Your task to perform on an android device: Open Google Maps Image 0: 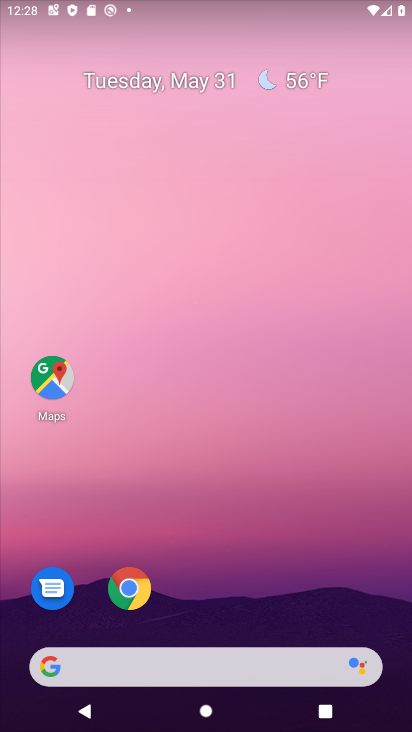
Step 0: click (34, 371)
Your task to perform on an android device: Open Google Maps Image 1: 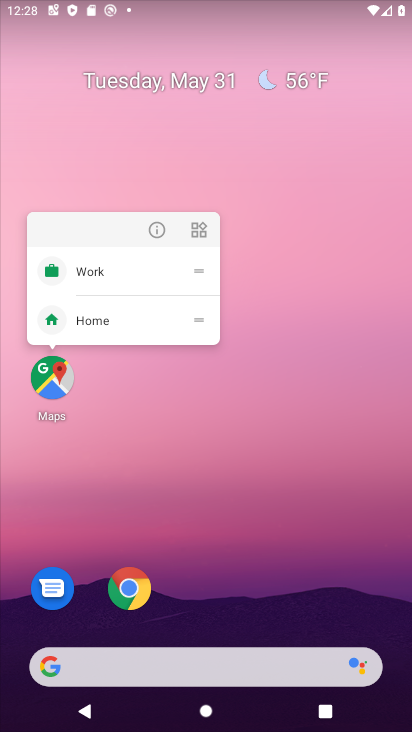
Step 1: click (53, 405)
Your task to perform on an android device: Open Google Maps Image 2: 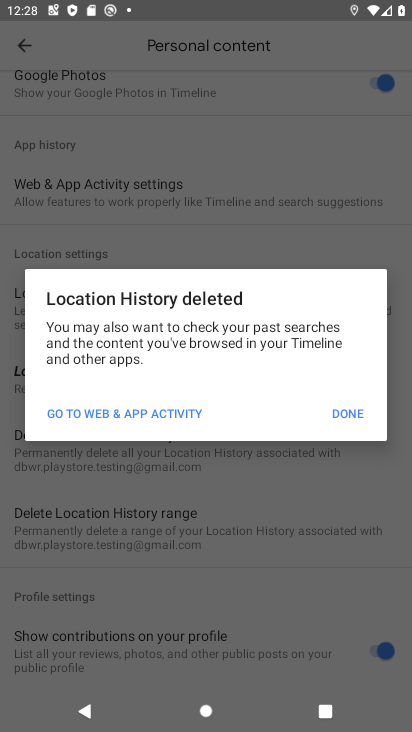
Step 2: click (356, 415)
Your task to perform on an android device: Open Google Maps Image 3: 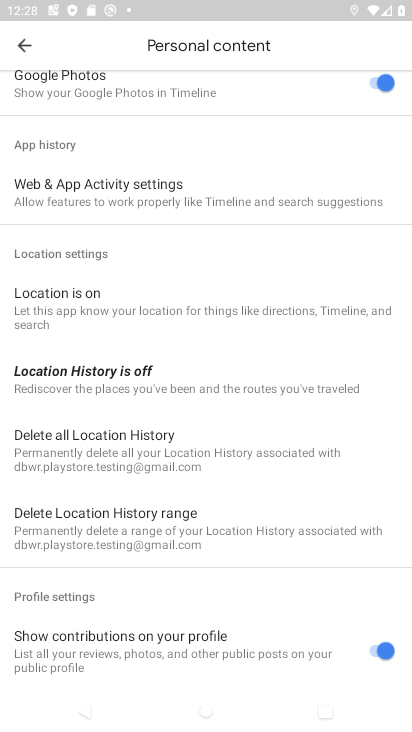
Step 3: click (23, 52)
Your task to perform on an android device: Open Google Maps Image 4: 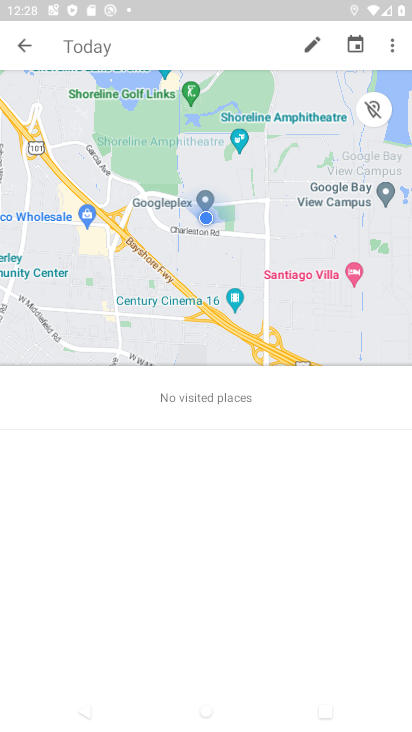
Step 4: click (27, 55)
Your task to perform on an android device: Open Google Maps Image 5: 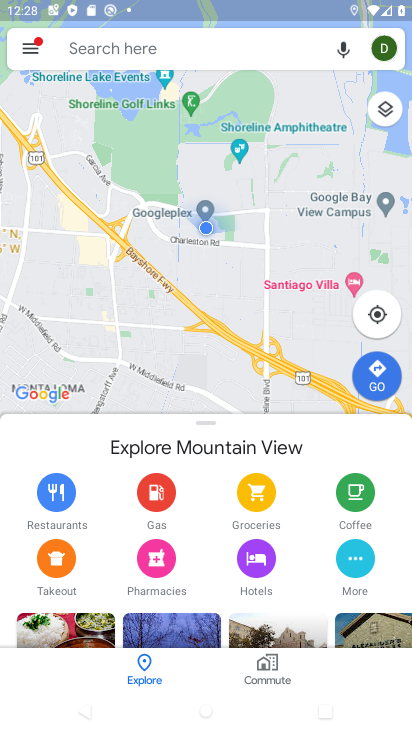
Step 5: task complete